Your task to perform on an android device: Go to privacy settings Image 0: 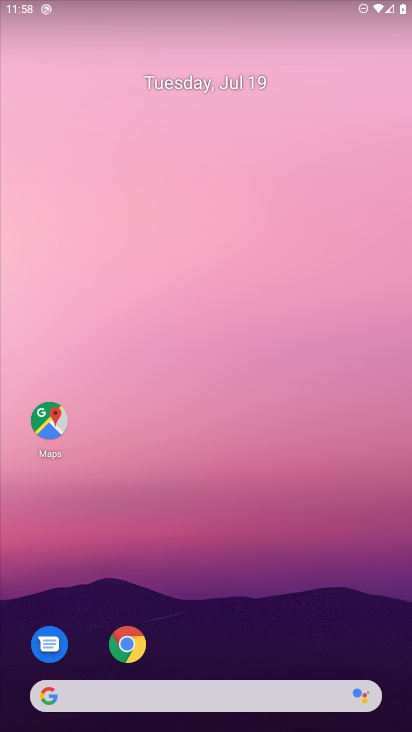
Step 0: drag from (305, 13) to (353, 130)
Your task to perform on an android device: Go to privacy settings Image 1: 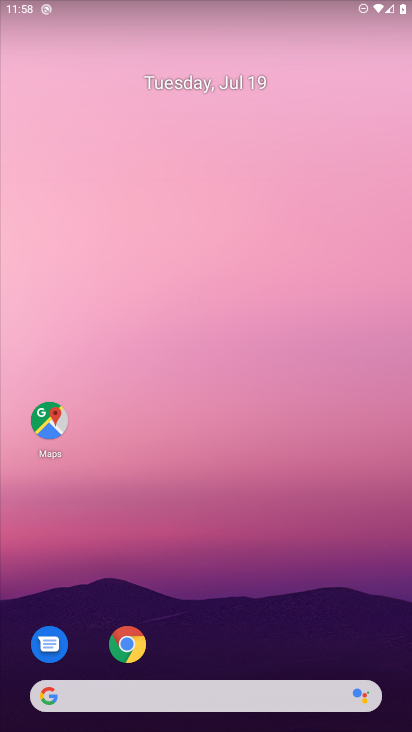
Step 1: drag from (23, 690) to (133, 94)
Your task to perform on an android device: Go to privacy settings Image 2: 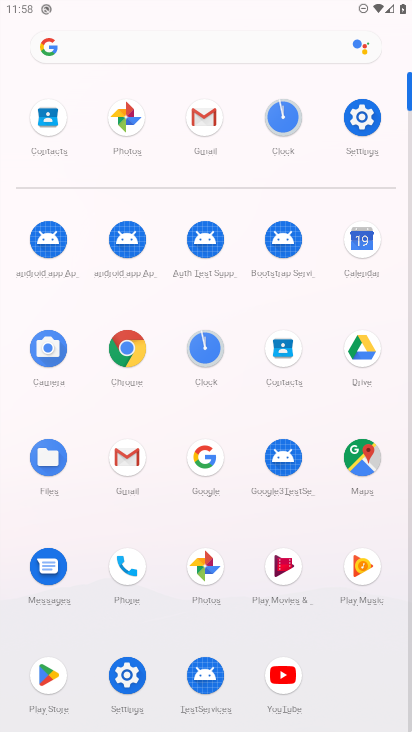
Step 2: click (113, 687)
Your task to perform on an android device: Go to privacy settings Image 3: 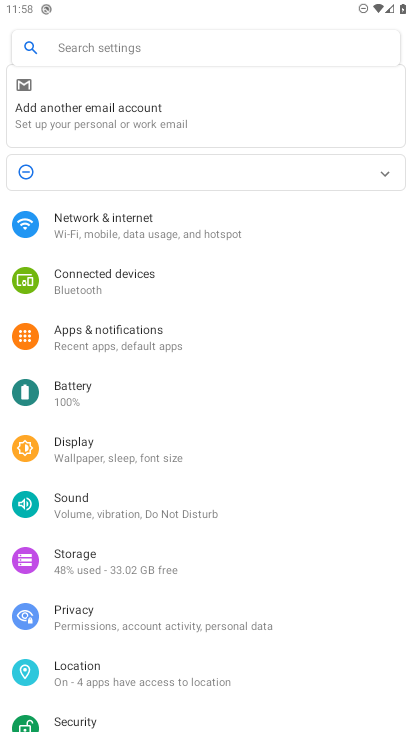
Step 3: click (104, 610)
Your task to perform on an android device: Go to privacy settings Image 4: 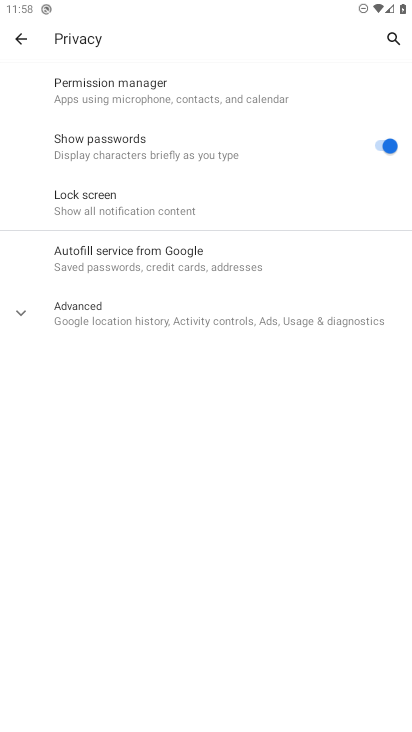
Step 4: task complete